Your task to perform on an android device: set the stopwatch Image 0: 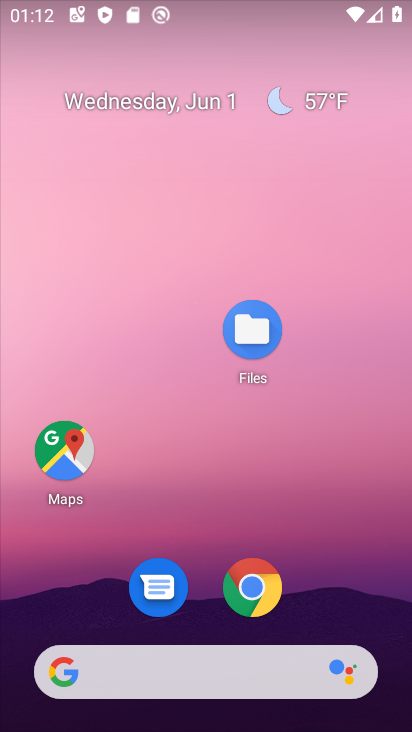
Step 0: drag from (395, 665) to (283, 47)
Your task to perform on an android device: set the stopwatch Image 1: 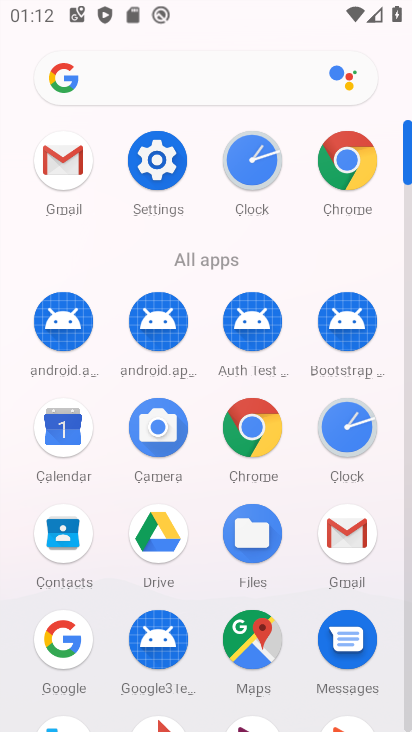
Step 1: click (362, 432)
Your task to perform on an android device: set the stopwatch Image 2: 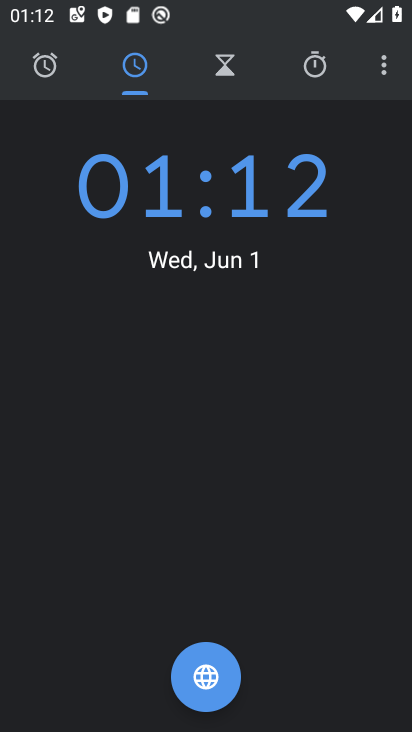
Step 2: drag from (389, 51) to (268, 53)
Your task to perform on an android device: set the stopwatch Image 3: 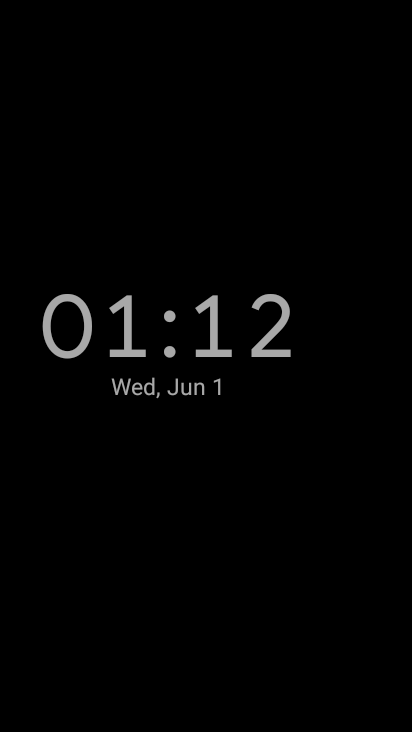
Step 3: click (268, 56)
Your task to perform on an android device: set the stopwatch Image 4: 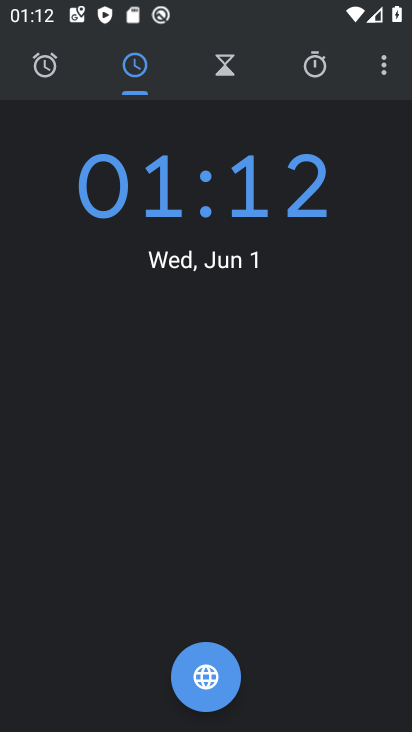
Step 4: click (302, 73)
Your task to perform on an android device: set the stopwatch Image 5: 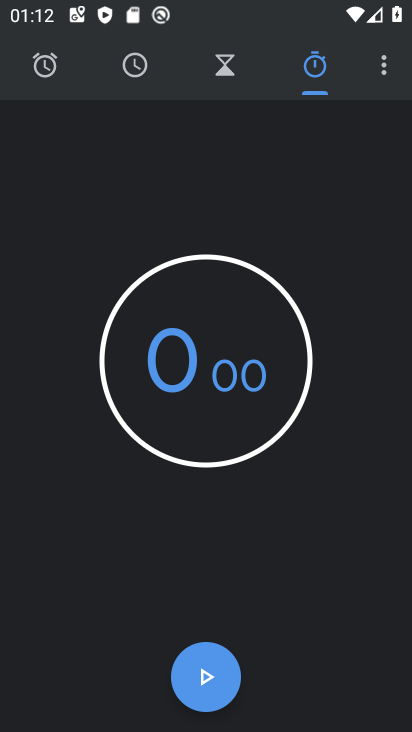
Step 5: click (195, 654)
Your task to perform on an android device: set the stopwatch Image 6: 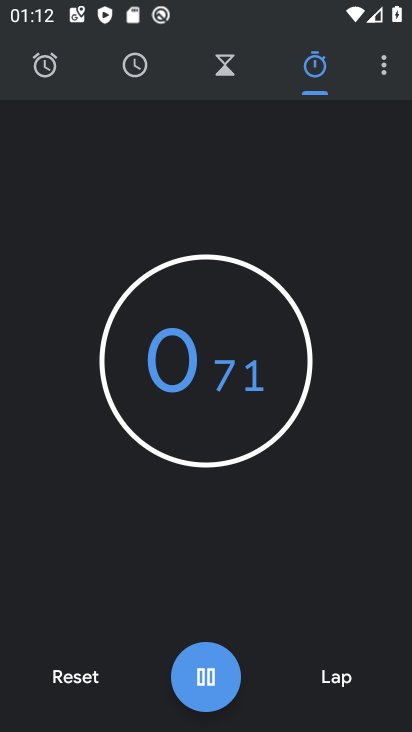
Step 6: task complete